Your task to perform on an android device: Do I have any events tomorrow? Image 0: 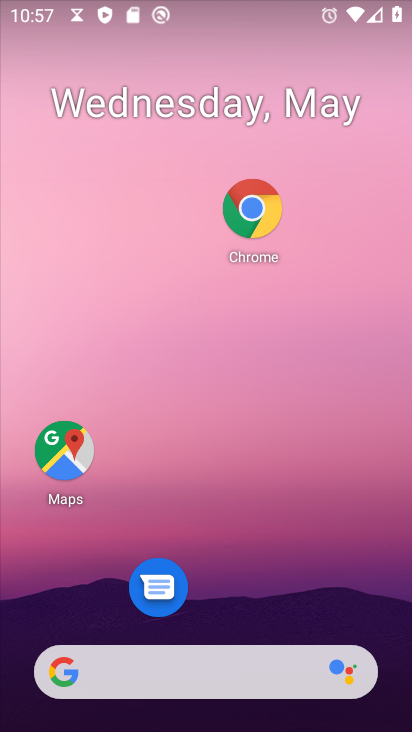
Step 0: drag from (201, 611) to (311, 135)
Your task to perform on an android device: Do I have any events tomorrow? Image 1: 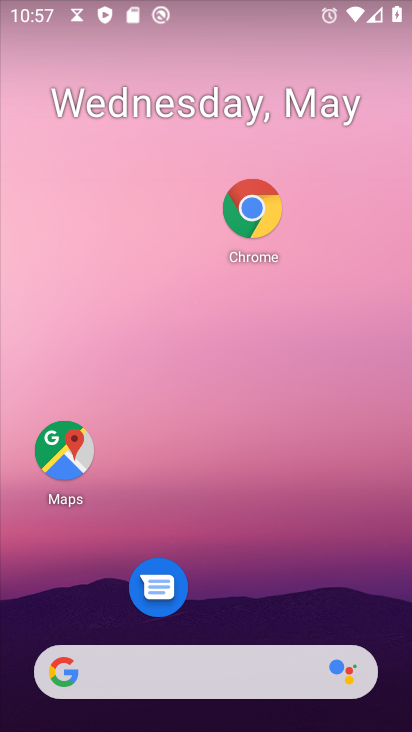
Step 1: drag from (312, 9) to (388, 306)
Your task to perform on an android device: Do I have any events tomorrow? Image 2: 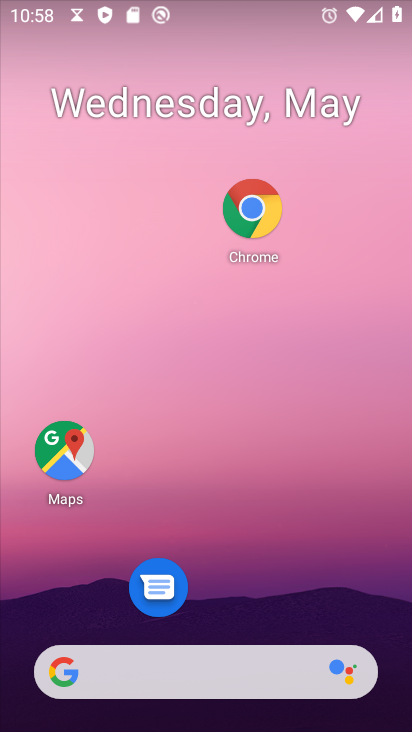
Step 2: drag from (236, 601) to (395, 564)
Your task to perform on an android device: Do I have any events tomorrow? Image 3: 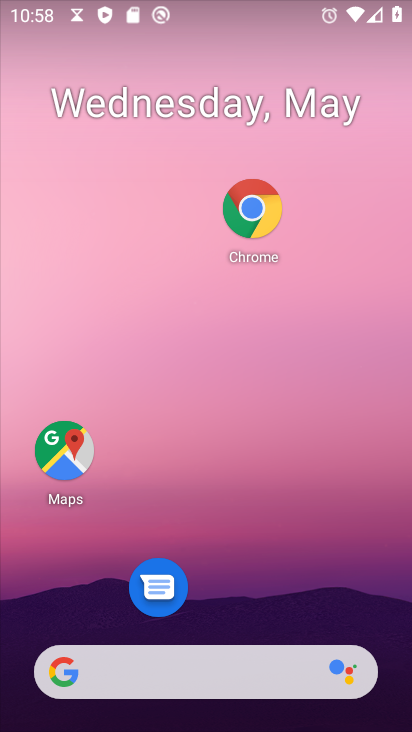
Step 3: drag from (226, 568) to (364, 2)
Your task to perform on an android device: Do I have any events tomorrow? Image 4: 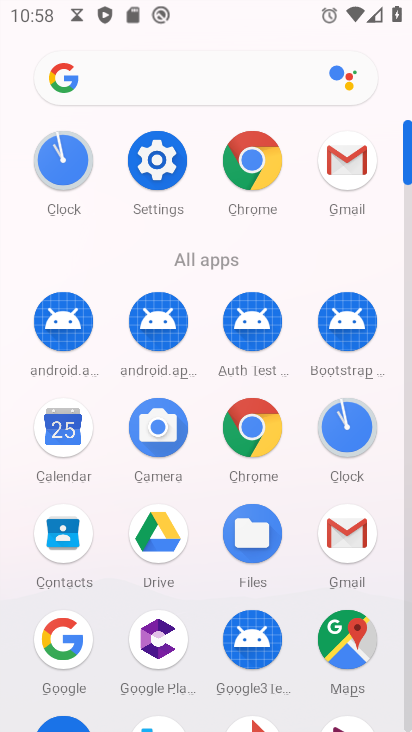
Step 4: click (40, 474)
Your task to perform on an android device: Do I have any events tomorrow? Image 5: 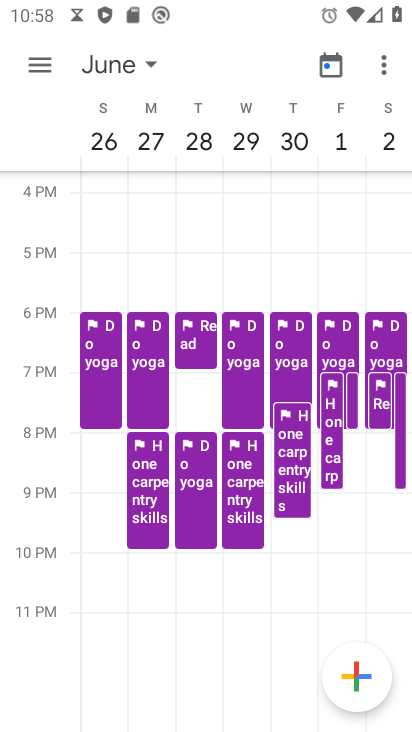
Step 5: task complete